Your task to perform on an android device: set the stopwatch Image 0: 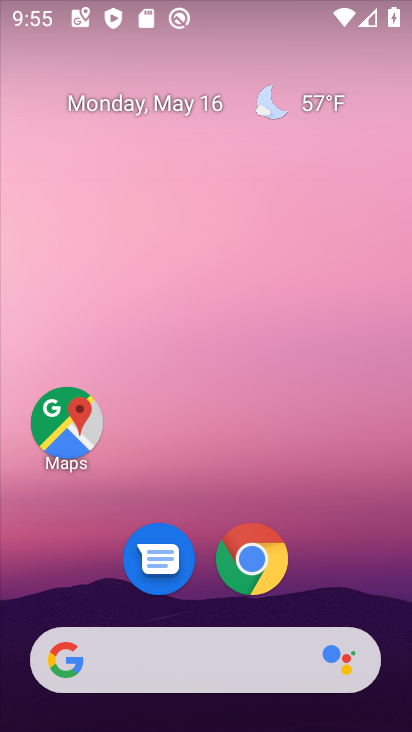
Step 0: drag from (351, 530) to (313, 70)
Your task to perform on an android device: set the stopwatch Image 1: 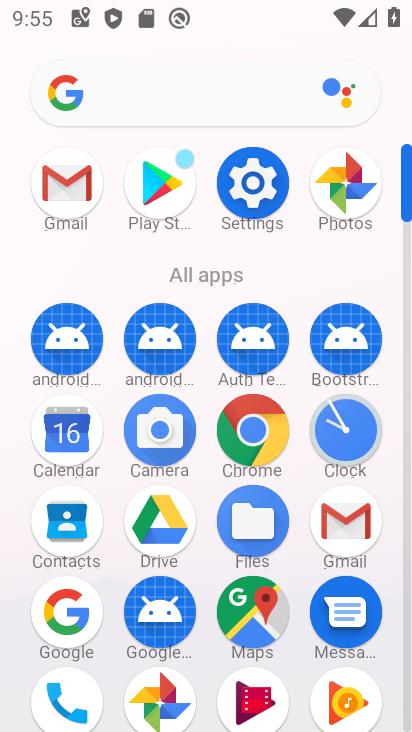
Step 1: click (351, 426)
Your task to perform on an android device: set the stopwatch Image 2: 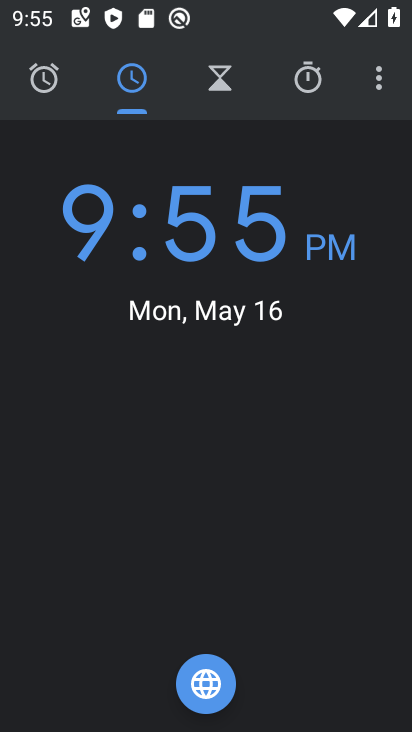
Step 2: click (314, 72)
Your task to perform on an android device: set the stopwatch Image 3: 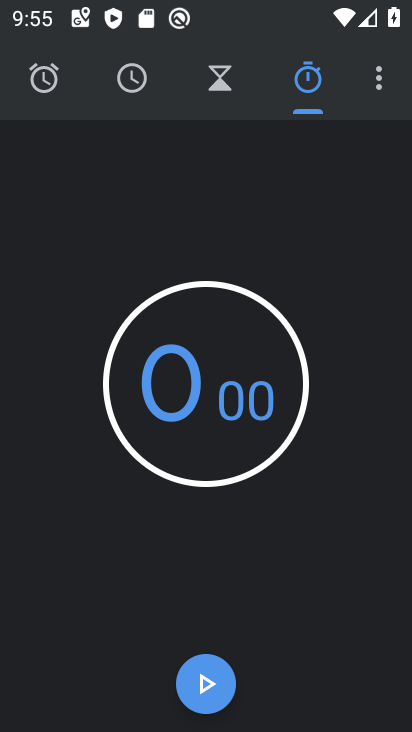
Step 3: click (215, 687)
Your task to perform on an android device: set the stopwatch Image 4: 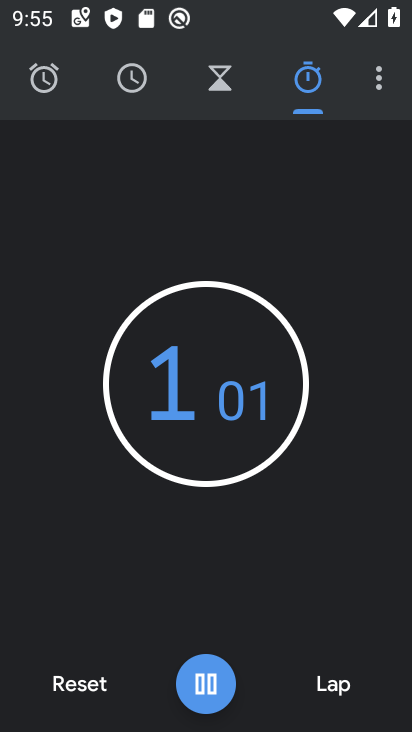
Step 4: click (216, 686)
Your task to perform on an android device: set the stopwatch Image 5: 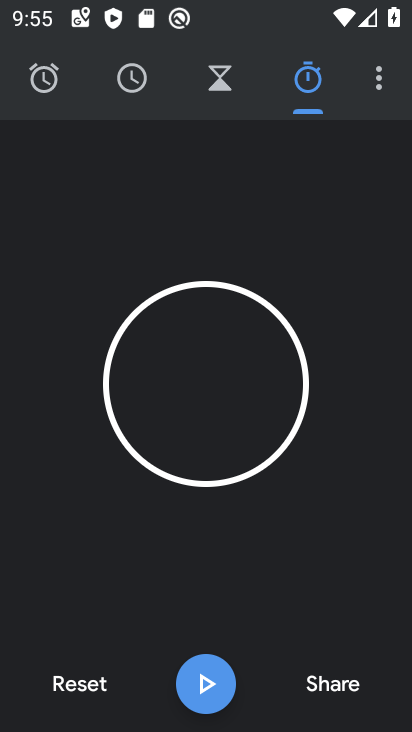
Step 5: task complete